Your task to perform on an android device: open a new tab in the chrome app Image 0: 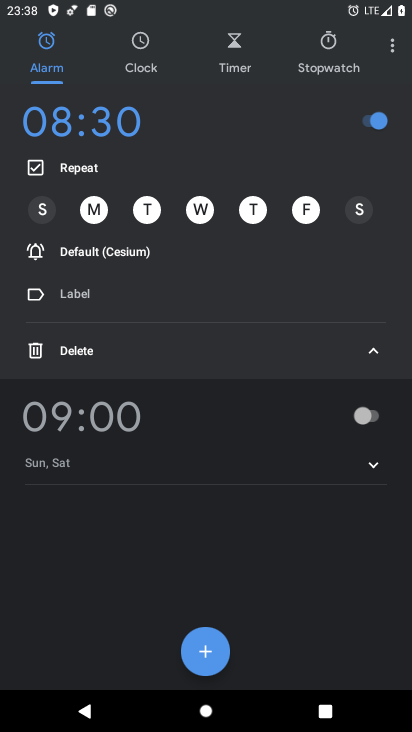
Step 0: click (319, 622)
Your task to perform on an android device: open a new tab in the chrome app Image 1: 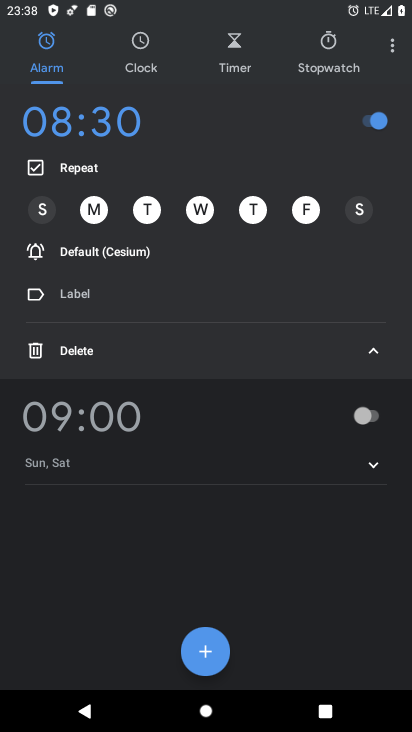
Step 1: press home button
Your task to perform on an android device: open a new tab in the chrome app Image 2: 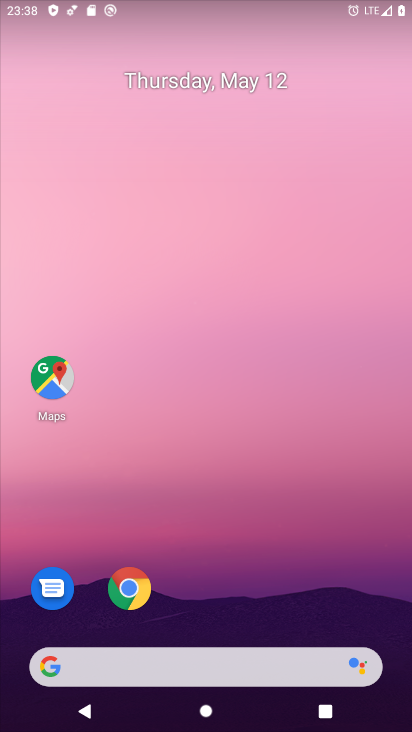
Step 2: drag from (215, 608) to (309, 11)
Your task to perform on an android device: open a new tab in the chrome app Image 3: 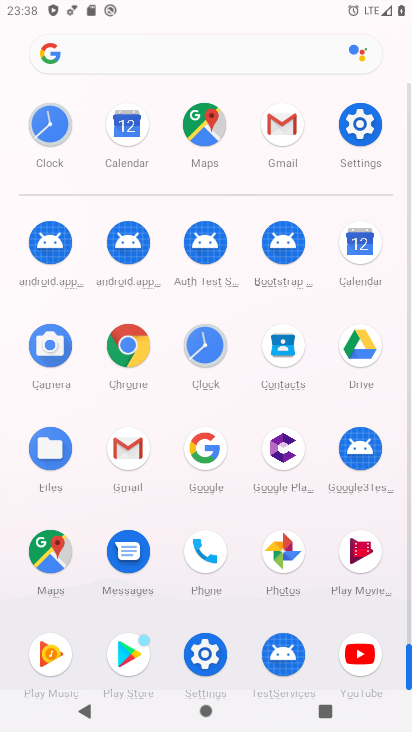
Step 3: click (123, 352)
Your task to perform on an android device: open a new tab in the chrome app Image 4: 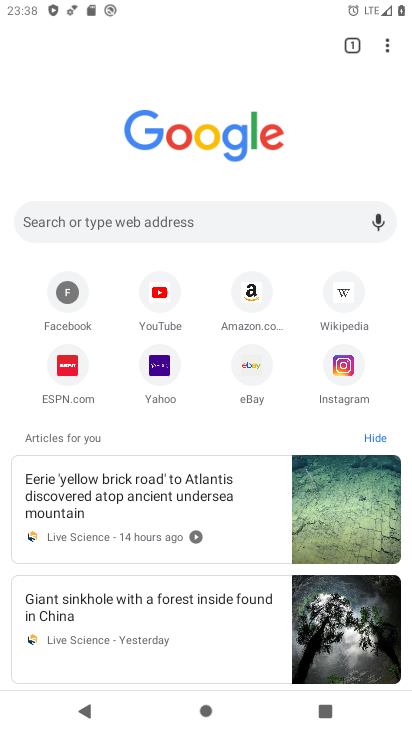
Step 4: click (376, 44)
Your task to perform on an android device: open a new tab in the chrome app Image 5: 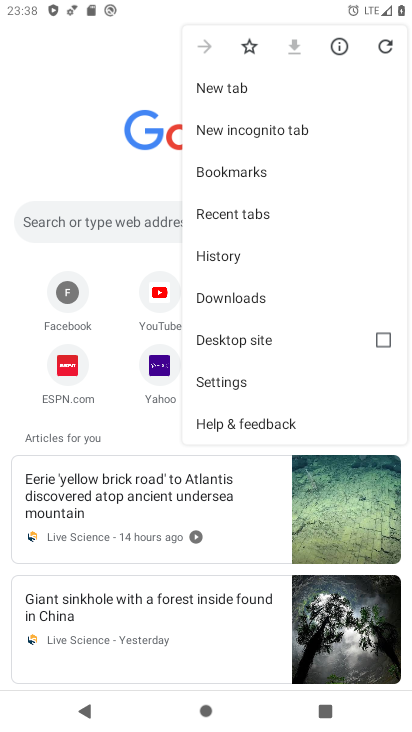
Step 5: click (259, 365)
Your task to perform on an android device: open a new tab in the chrome app Image 6: 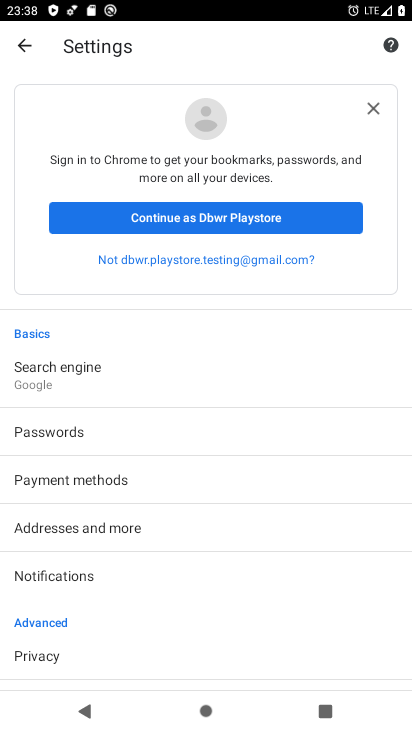
Step 6: drag from (199, 574) to (195, 299)
Your task to perform on an android device: open a new tab in the chrome app Image 7: 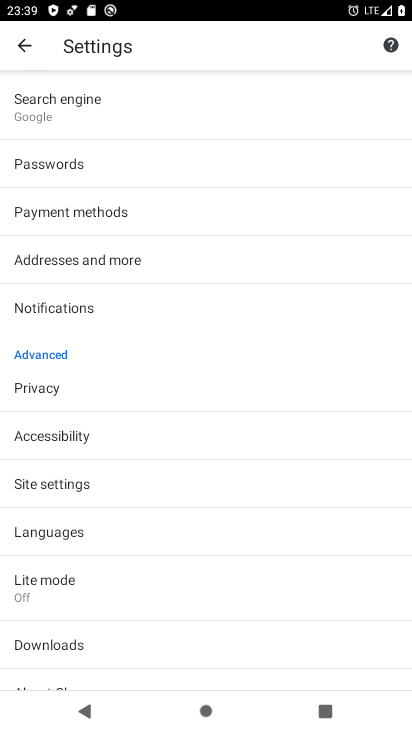
Step 7: drag from (244, 498) to (244, 235)
Your task to perform on an android device: open a new tab in the chrome app Image 8: 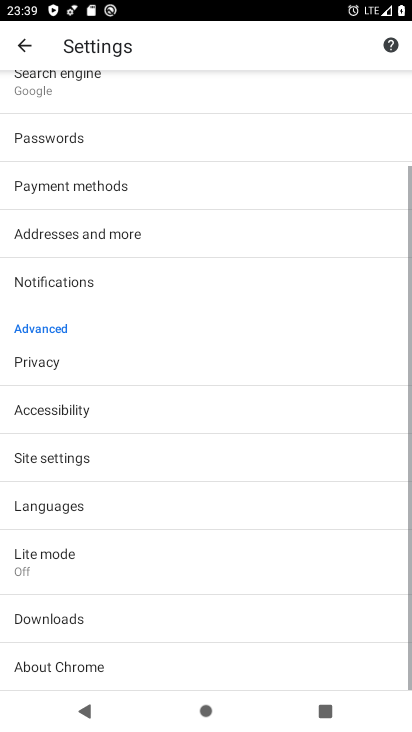
Step 8: drag from (186, 594) to (236, 269)
Your task to perform on an android device: open a new tab in the chrome app Image 9: 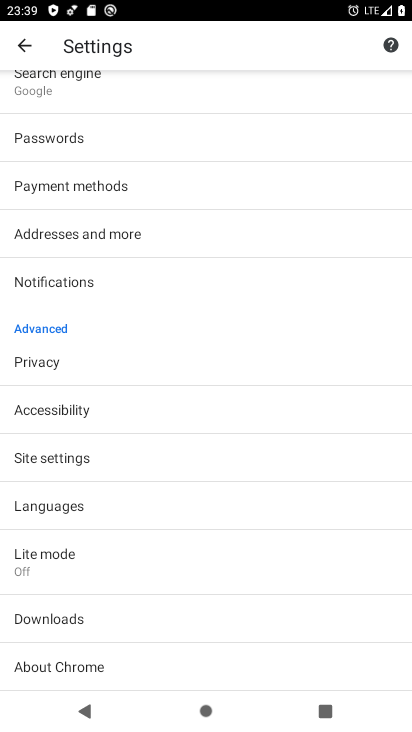
Step 9: click (25, 46)
Your task to perform on an android device: open a new tab in the chrome app Image 10: 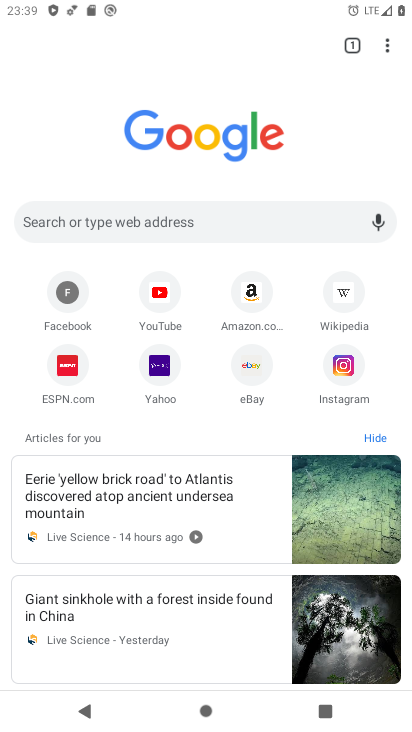
Step 10: click (377, 53)
Your task to perform on an android device: open a new tab in the chrome app Image 11: 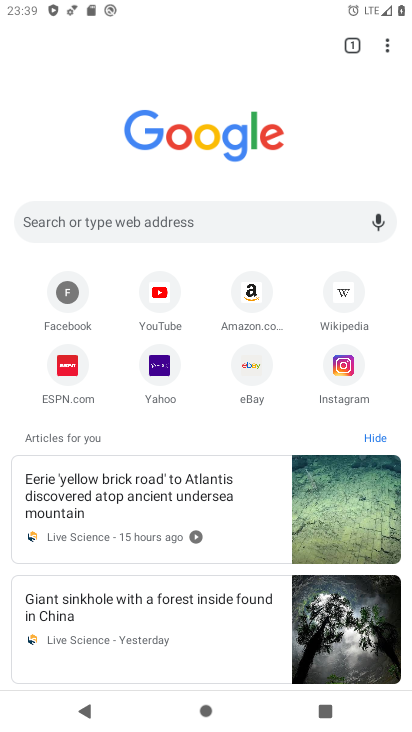
Step 11: click (339, 35)
Your task to perform on an android device: open a new tab in the chrome app Image 12: 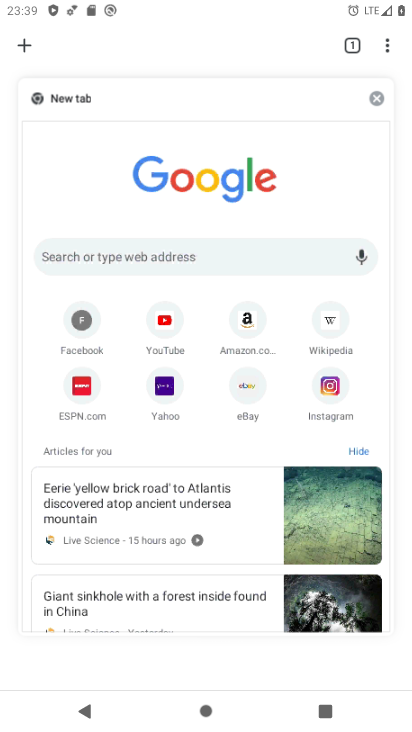
Step 12: click (22, 59)
Your task to perform on an android device: open a new tab in the chrome app Image 13: 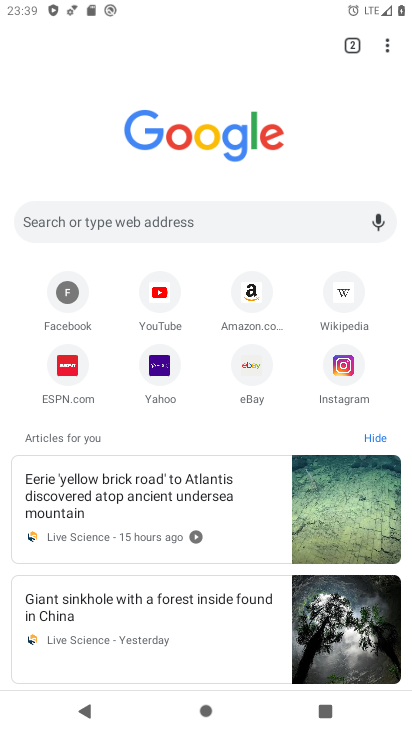
Step 13: task complete